Your task to perform on an android device: Go to Google maps Image 0: 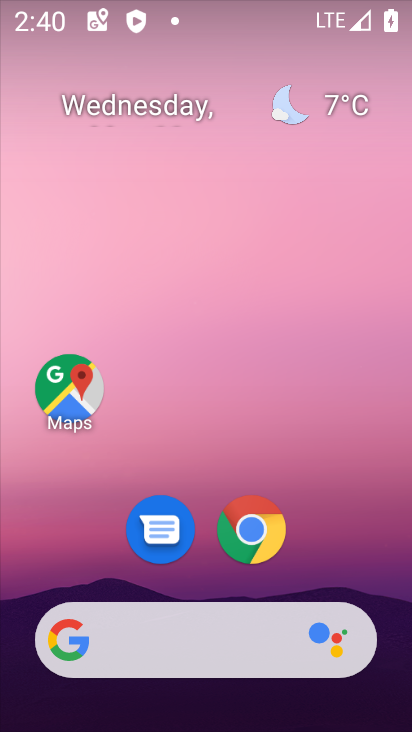
Step 0: press back button
Your task to perform on an android device: Go to Google maps Image 1: 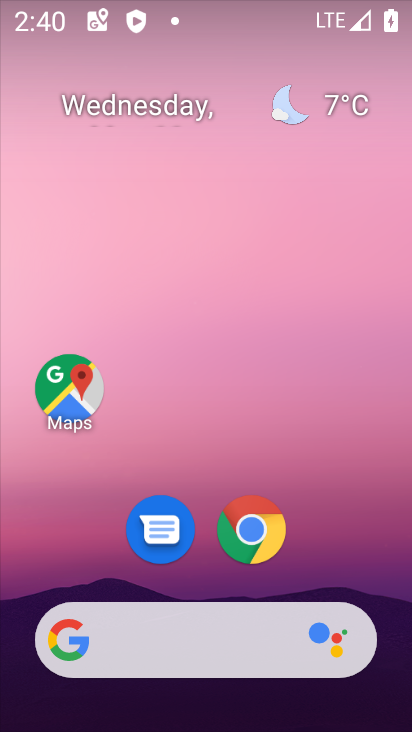
Step 1: click (62, 638)
Your task to perform on an android device: Go to Google maps Image 2: 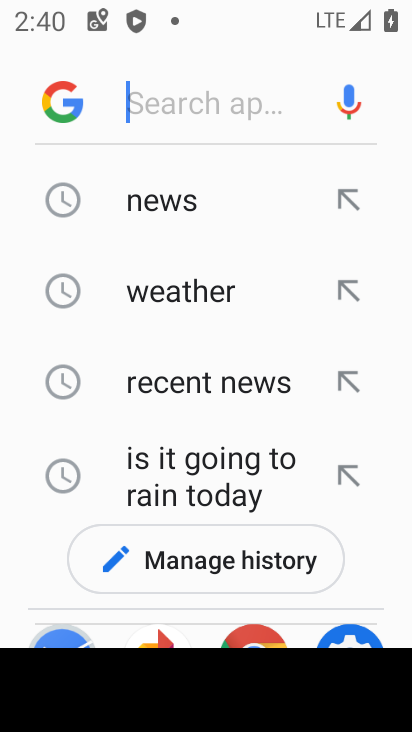
Step 2: click (141, 189)
Your task to perform on an android device: Go to Google maps Image 3: 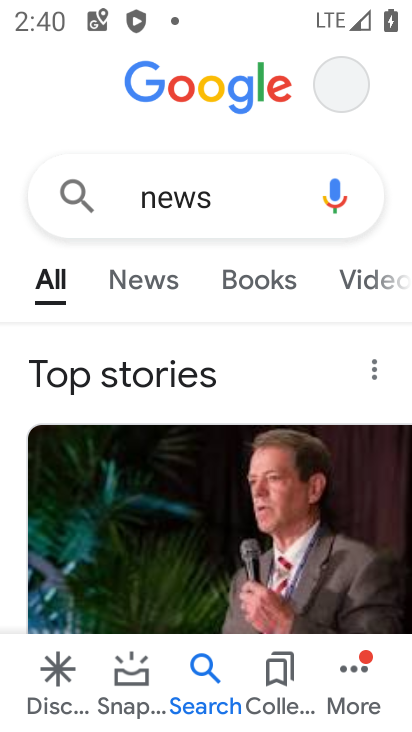
Step 3: press back button
Your task to perform on an android device: Go to Google maps Image 4: 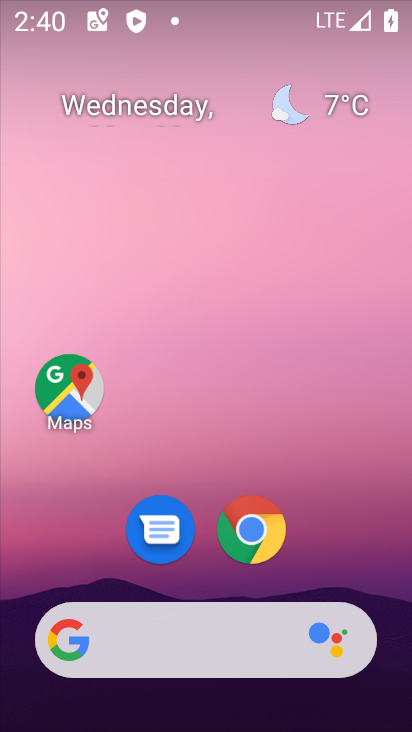
Step 4: click (50, 380)
Your task to perform on an android device: Go to Google maps Image 5: 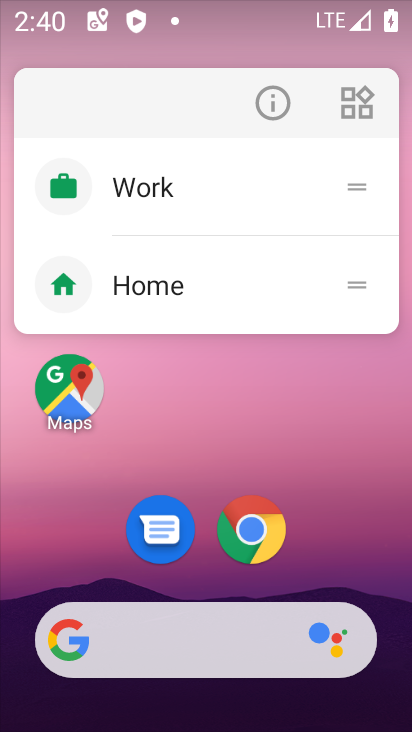
Step 5: click (69, 391)
Your task to perform on an android device: Go to Google maps Image 6: 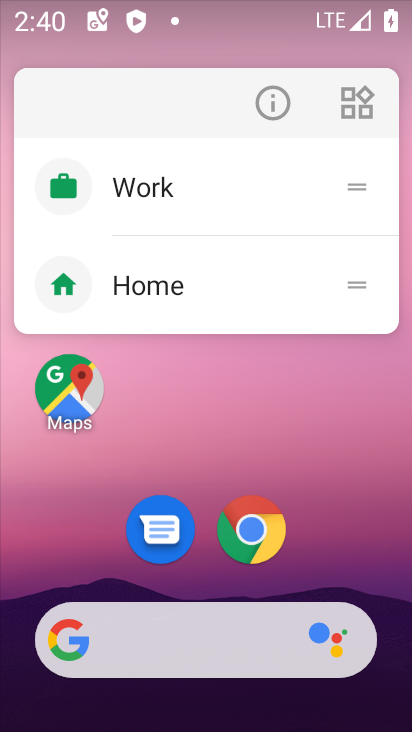
Step 6: click (69, 389)
Your task to perform on an android device: Go to Google maps Image 7: 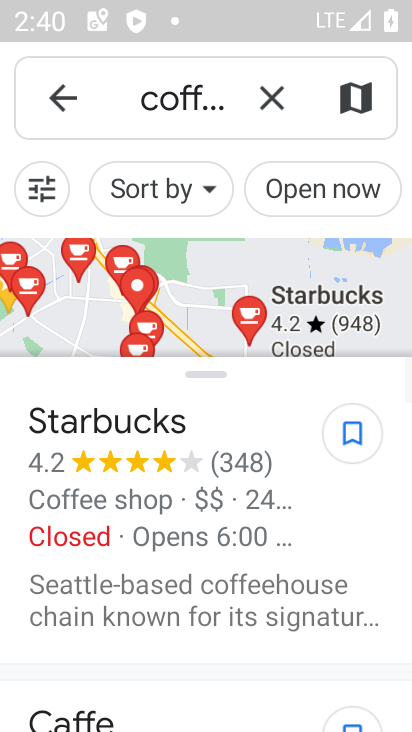
Step 7: click (283, 90)
Your task to perform on an android device: Go to Google maps Image 8: 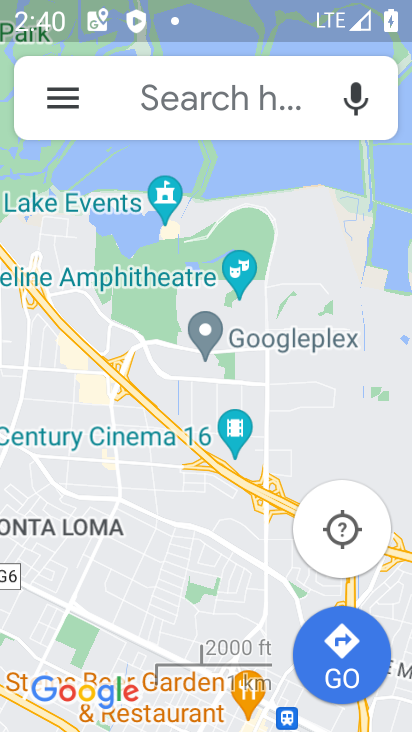
Step 8: task complete